Your task to perform on an android device: open app "Yahoo Mail" (install if not already installed) Image 0: 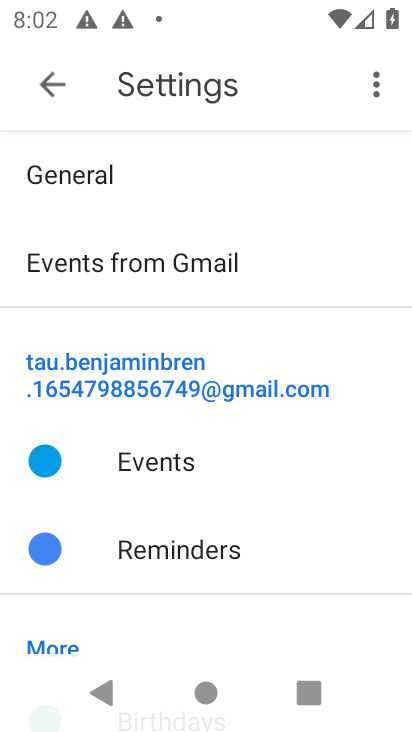
Step 0: press home button
Your task to perform on an android device: open app "Yahoo Mail" (install if not already installed) Image 1: 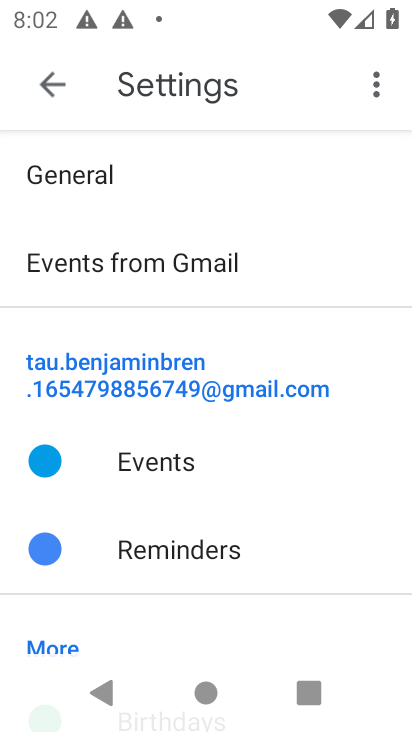
Step 1: press home button
Your task to perform on an android device: open app "Yahoo Mail" (install if not already installed) Image 2: 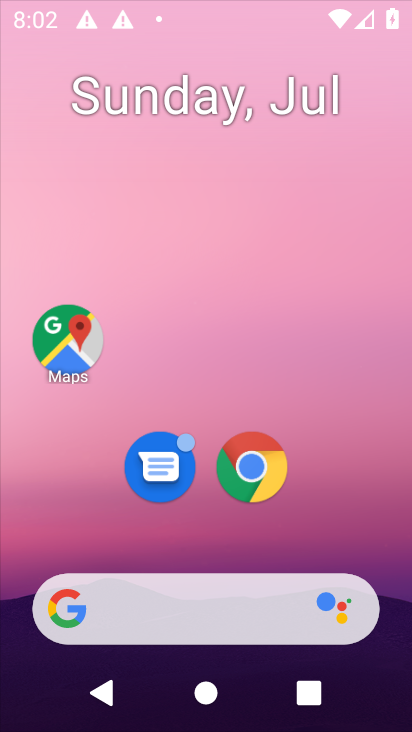
Step 2: drag from (181, 568) to (233, 13)
Your task to perform on an android device: open app "Yahoo Mail" (install if not already installed) Image 3: 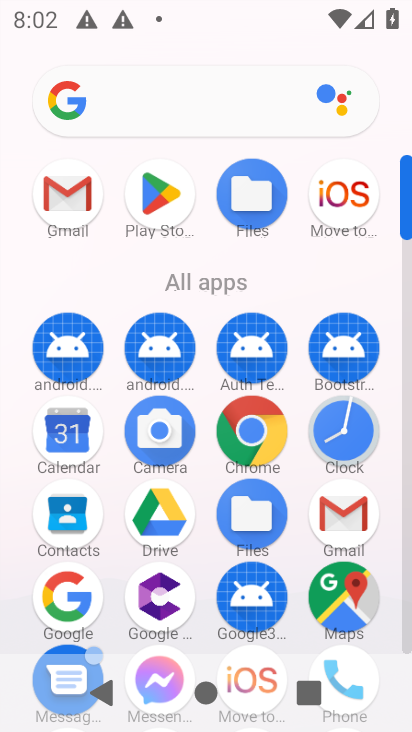
Step 3: drag from (192, 632) to (204, 266)
Your task to perform on an android device: open app "Yahoo Mail" (install if not already installed) Image 4: 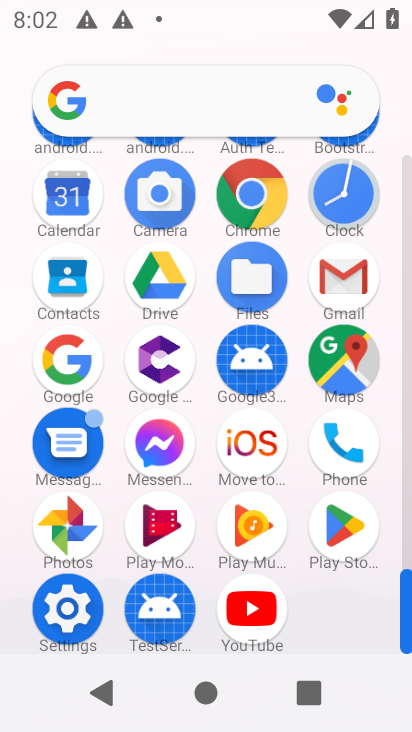
Step 4: click (347, 521)
Your task to perform on an android device: open app "Yahoo Mail" (install if not already installed) Image 5: 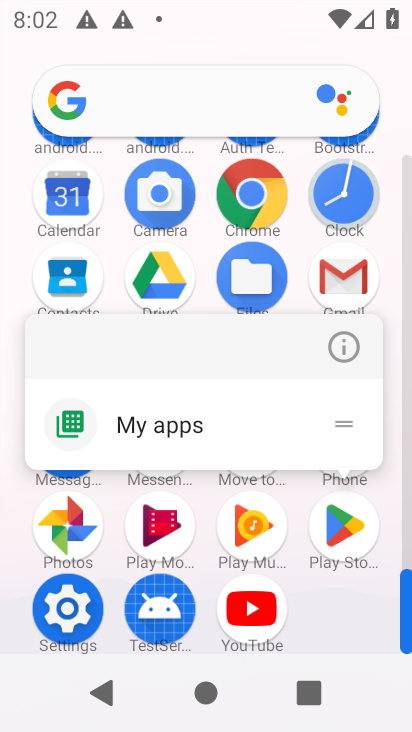
Step 5: click (343, 351)
Your task to perform on an android device: open app "Yahoo Mail" (install if not already installed) Image 6: 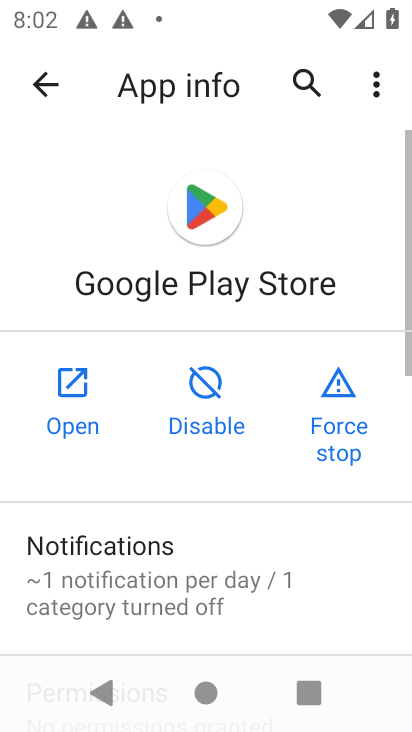
Step 6: click (93, 385)
Your task to perform on an android device: open app "Yahoo Mail" (install if not already installed) Image 7: 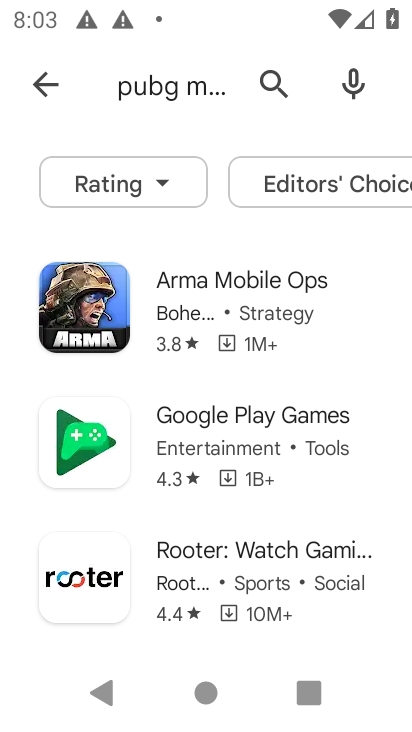
Step 7: click (270, 84)
Your task to perform on an android device: open app "Yahoo Mail" (install if not already installed) Image 8: 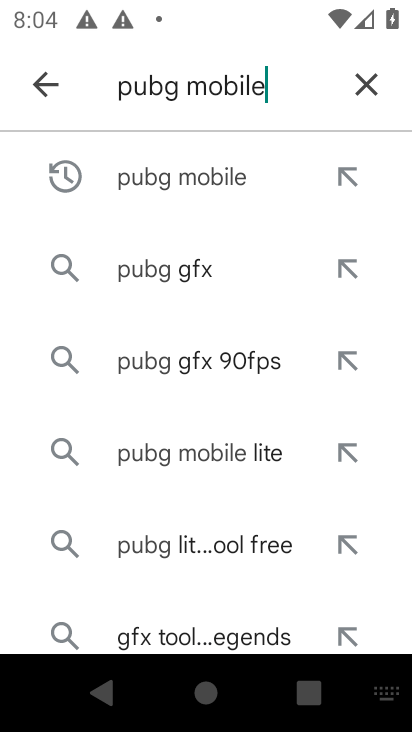
Step 8: click (143, 181)
Your task to perform on an android device: open app "Yahoo Mail" (install if not already installed) Image 9: 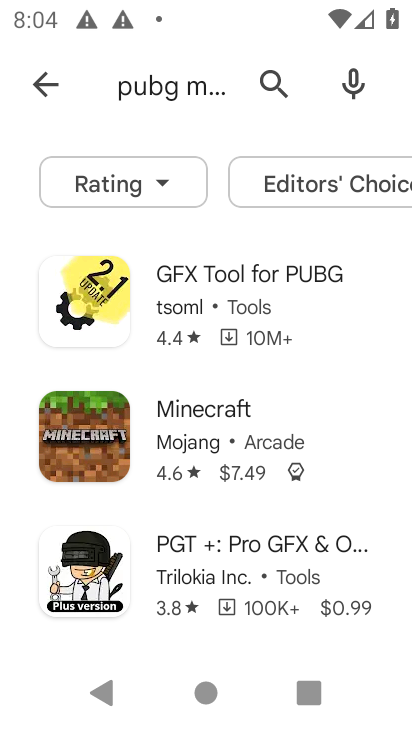
Step 9: click (274, 91)
Your task to perform on an android device: open app "Yahoo Mail" (install if not already installed) Image 10: 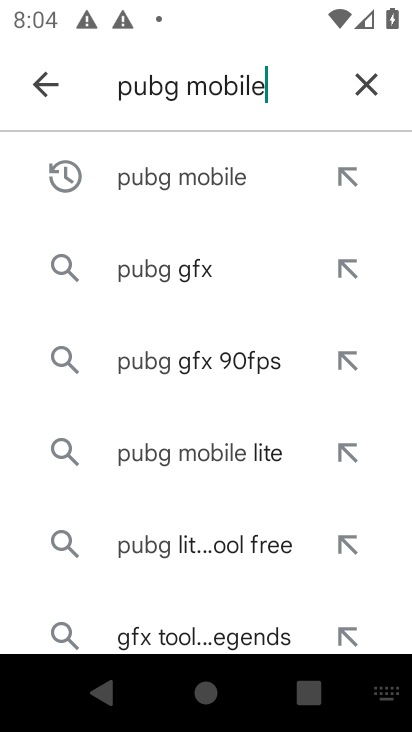
Step 10: click (364, 85)
Your task to perform on an android device: open app "Yahoo Mail" (install if not already installed) Image 11: 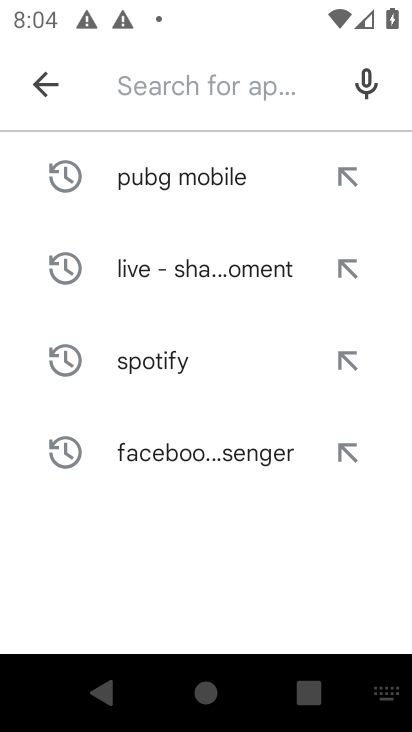
Step 11: type "Yahoo Mail"
Your task to perform on an android device: open app "Yahoo Mail" (install if not already installed) Image 12: 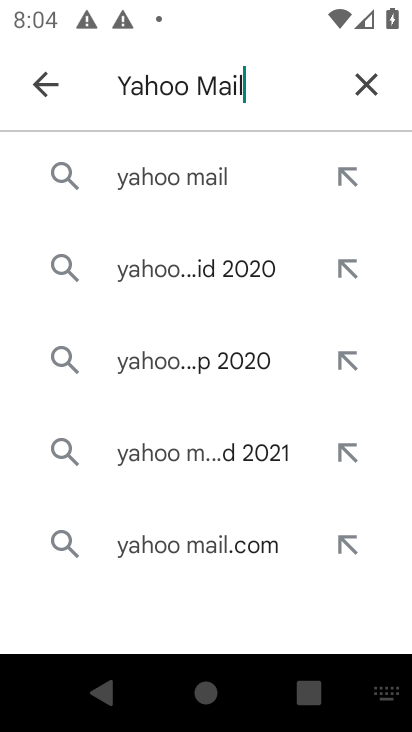
Step 12: click (143, 173)
Your task to perform on an android device: open app "Yahoo Mail" (install if not already installed) Image 13: 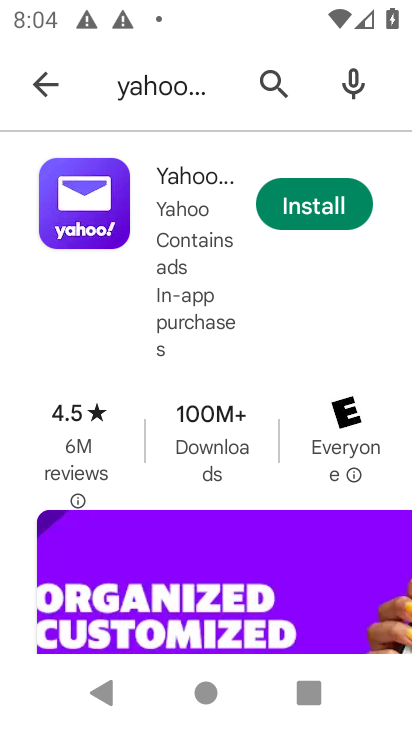
Step 13: drag from (207, 508) to (237, 295)
Your task to perform on an android device: open app "Yahoo Mail" (install if not already installed) Image 14: 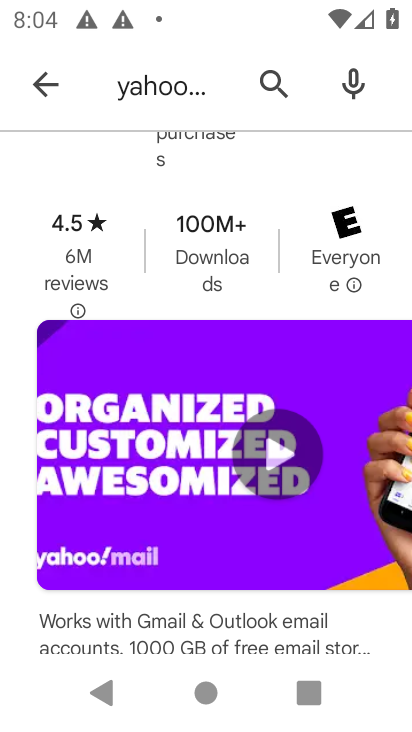
Step 14: drag from (231, 268) to (233, 711)
Your task to perform on an android device: open app "Yahoo Mail" (install if not already installed) Image 15: 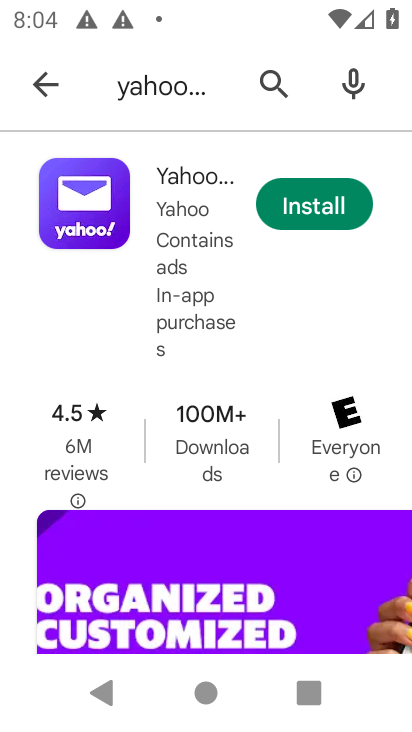
Step 15: click (132, 198)
Your task to perform on an android device: open app "Yahoo Mail" (install if not already installed) Image 16: 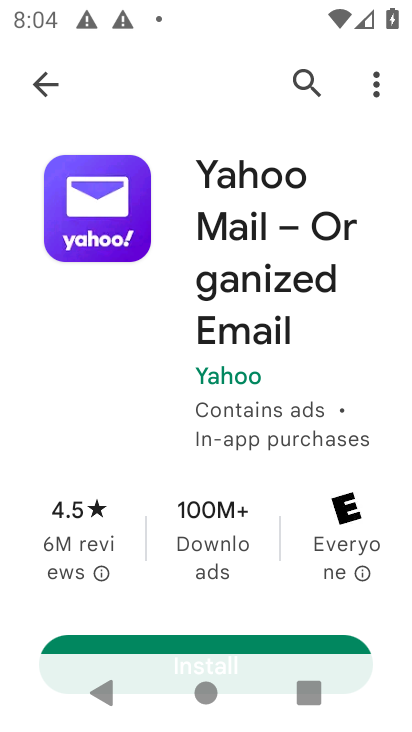
Step 16: drag from (223, 465) to (270, 243)
Your task to perform on an android device: open app "Yahoo Mail" (install if not already installed) Image 17: 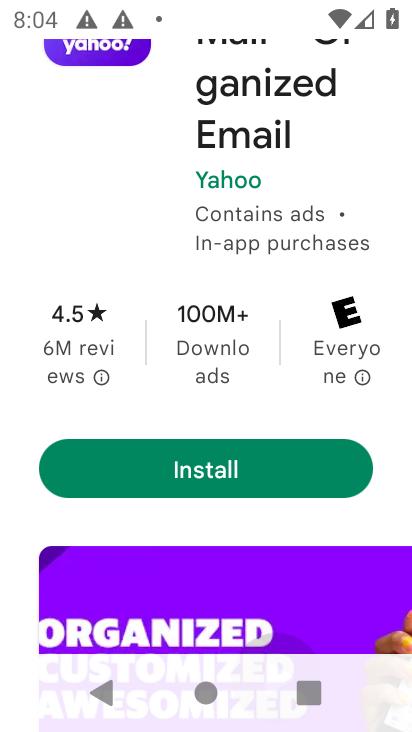
Step 17: click (204, 482)
Your task to perform on an android device: open app "Yahoo Mail" (install if not already installed) Image 18: 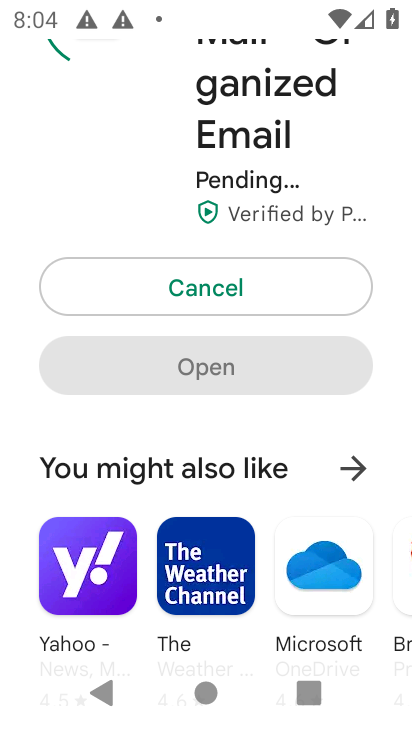
Step 18: task complete